Your task to perform on an android device: turn off location history Image 0: 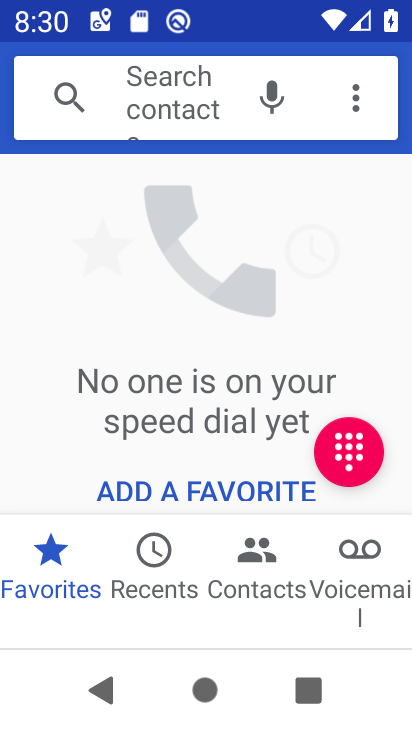
Step 0: press home button
Your task to perform on an android device: turn off location history Image 1: 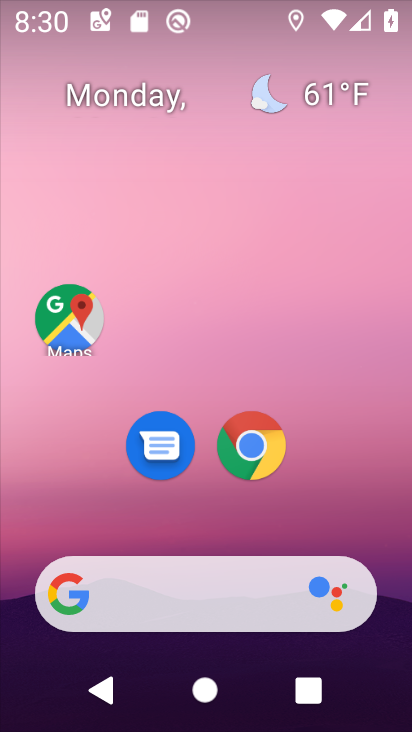
Step 1: click (67, 317)
Your task to perform on an android device: turn off location history Image 2: 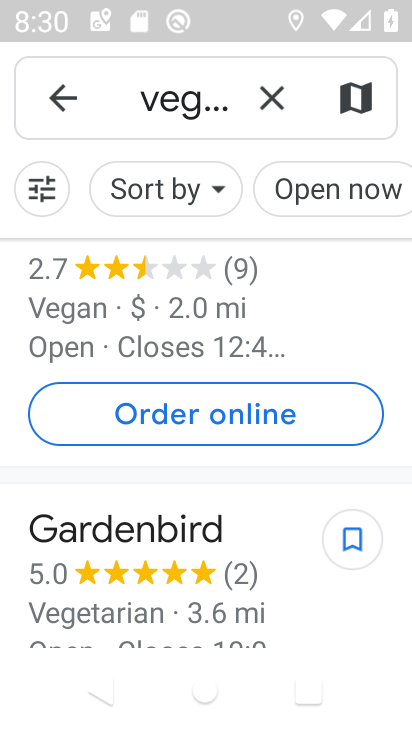
Step 2: press home button
Your task to perform on an android device: turn off location history Image 3: 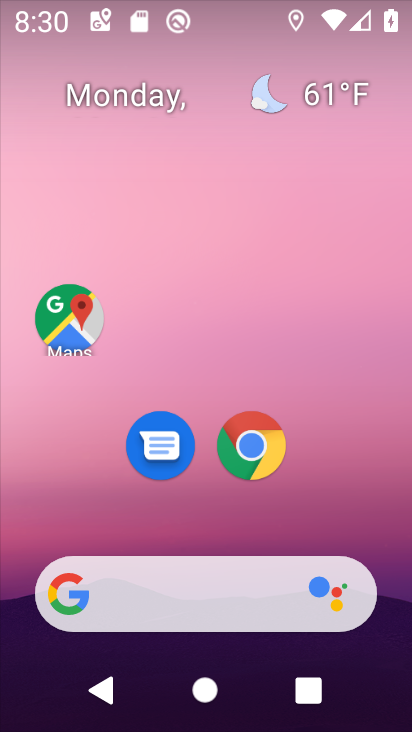
Step 3: drag from (207, 524) to (243, 43)
Your task to perform on an android device: turn off location history Image 4: 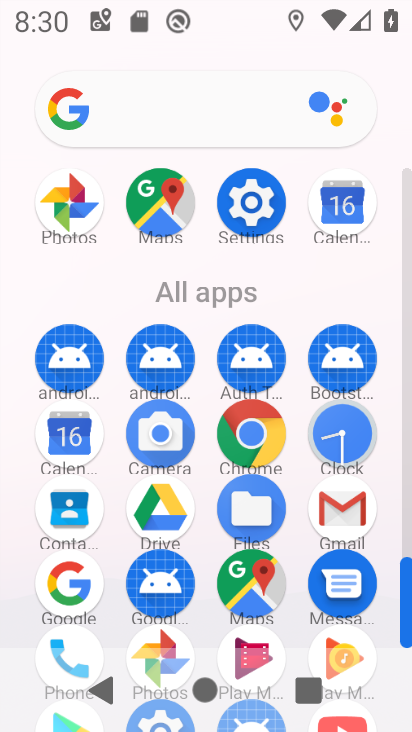
Step 4: click (251, 194)
Your task to perform on an android device: turn off location history Image 5: 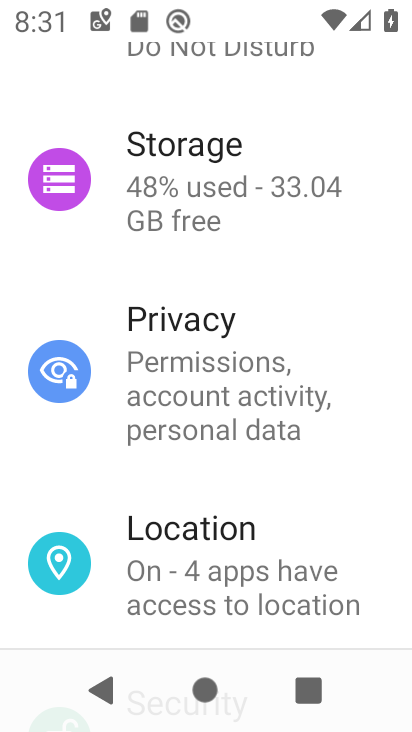
Step 5: click (221, 550)
Your task to perform on an android device: turn off location history Image 6: 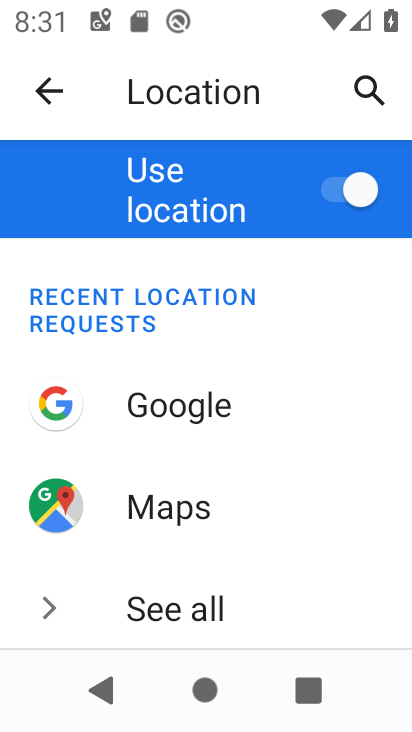
Step 6: drag from (250, 600) to (258, 201)
Your task to perform on an android device: turn off location history Image 7: 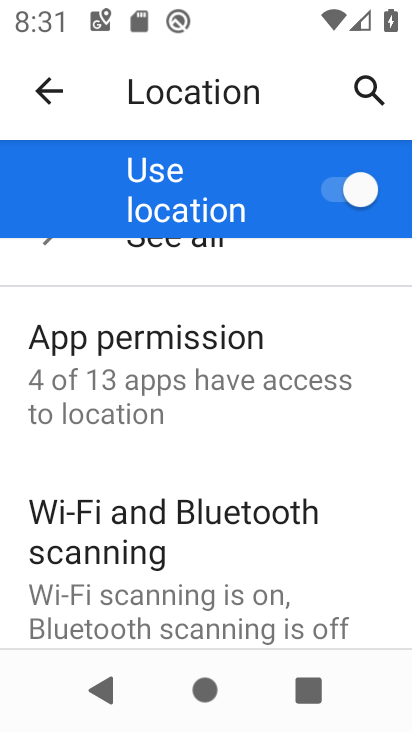
Step 7: drag from (232, 579) to (263, 149)
Your task to perform on an android device: turn off location history Image 8: 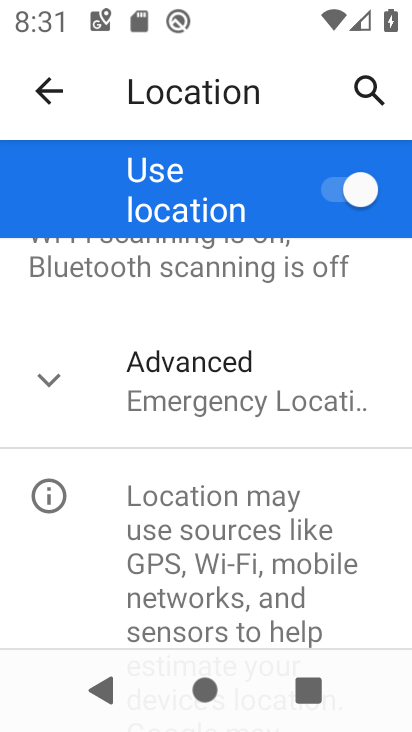
Step 8: click (47, 385)
Your task to perform on an android device: turn off location history Image 9: 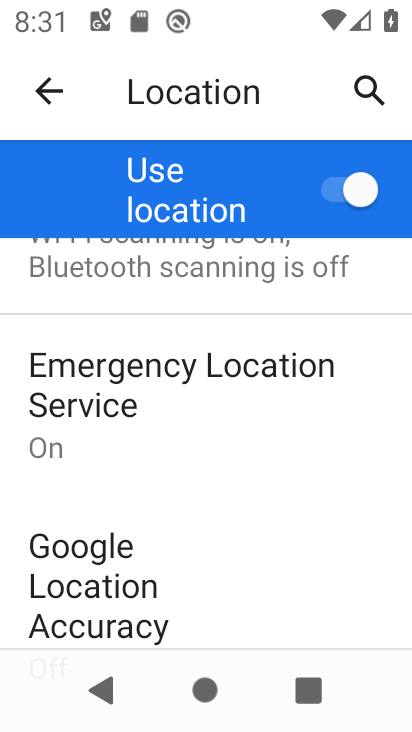
Step 9: drag from (195, 578) to (228, 316)
Your task to perform on an android device: turn off location history Image 10: 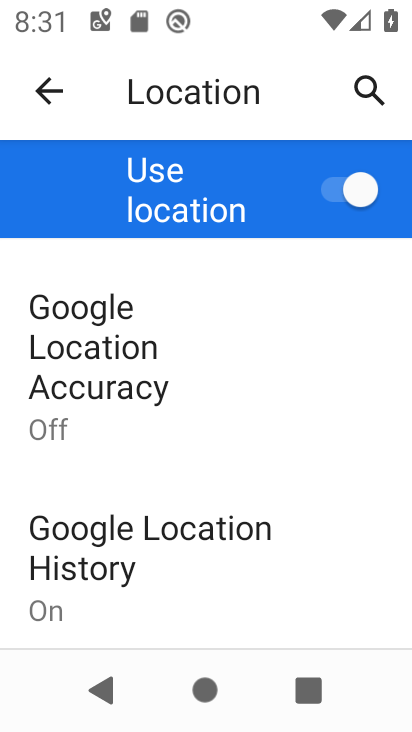
Step 10: click (162, 559)
Your task to perform on an android device: turn off location history Image 11: 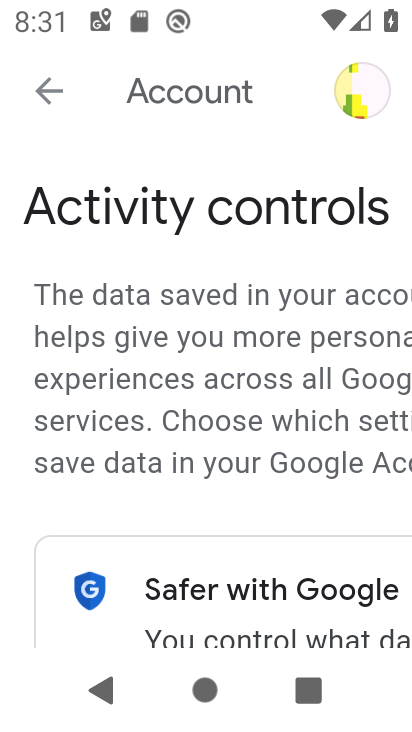
Step 11: drag from (245, 583) to (266, 115)
Your task to perform on an android device: turn off location history Image 12: 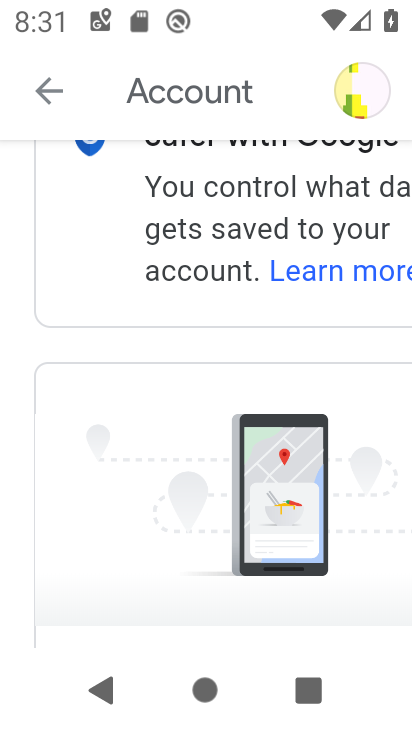
Step 12: drag from (193, 530) to (238, 237)
Your task to perform on an android device: turn off location history Image 13: 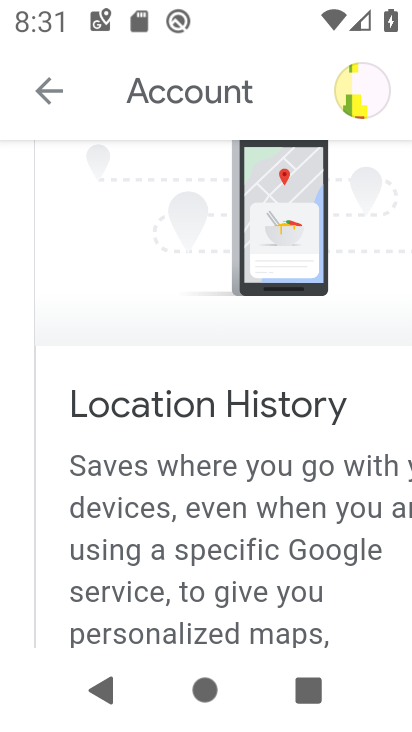
Step 13: drag from (197, 567) to (248, 272)
Your task to perform on an android device: turn off location history Image 14: 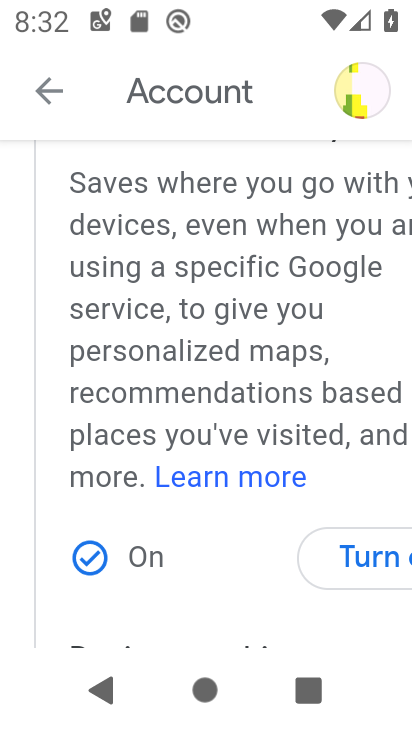
Step 14: click (369, 551)
Your task to perform on an android device: turn off location history Image 15: 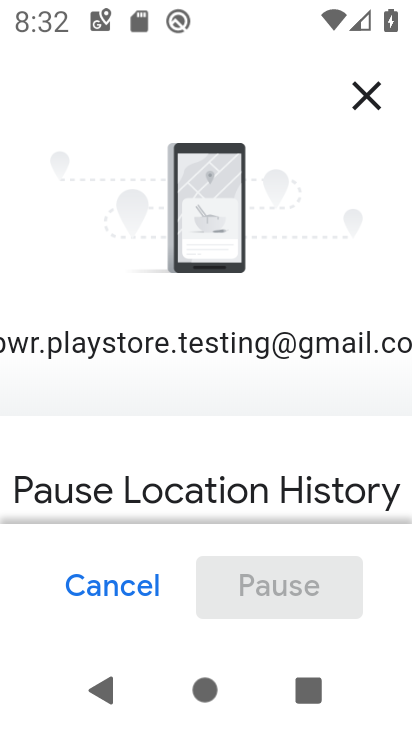
Step 15: drag from (281, 462) to (292, 4)
Your task to perform on an android device: turn off location history Image 16: 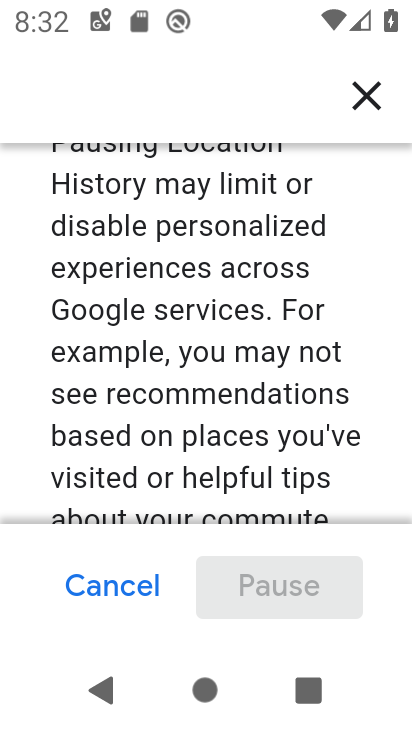
Step 16: drag from (258, 444) to (254, 103)
Your task to perform on an android device: turn off location history Image 17: 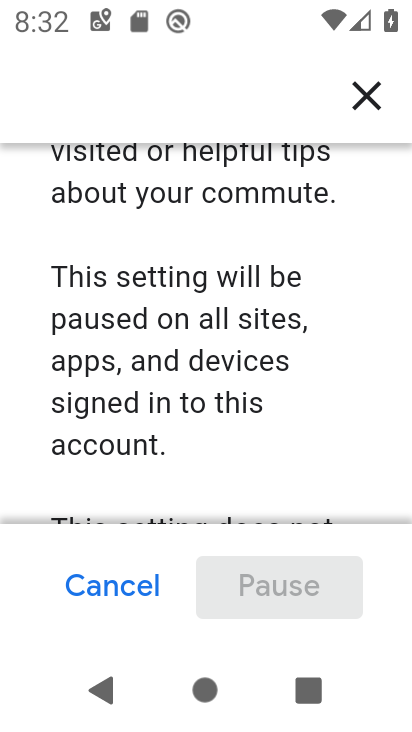
Step 17: drag from (236, 217) to (248, 148)
Your task to perform on an android device: turn off location history Image 18: 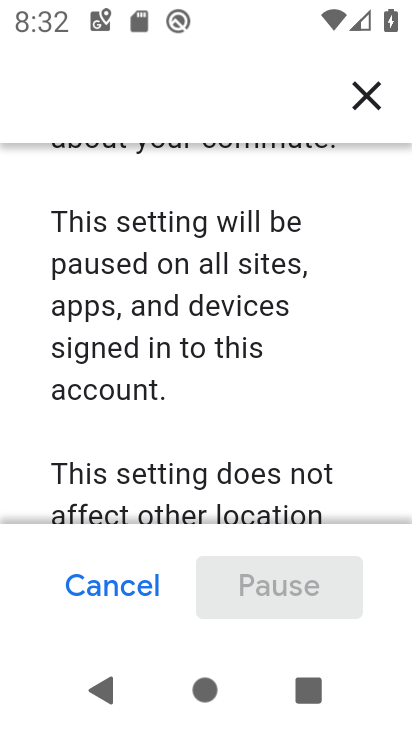
Step 18: drag from (247, 490) to (258, 123)
Your task to perform on an android device: turn off location history Image 19: 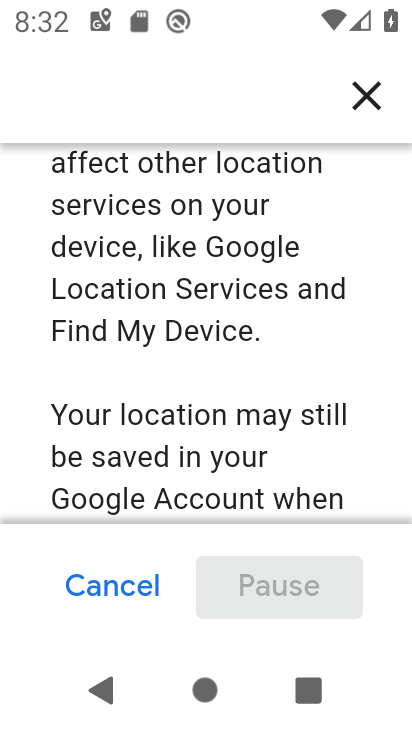
Step 19: drag from (217, 463) to (252, 129)
Your task to perform on an android device: turn off location history Image 20: 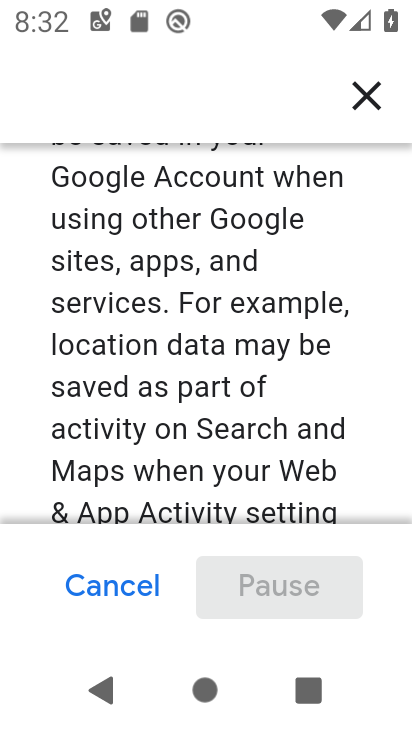
Step 20: drag from (238, 497) to (229, 141)
Your task to perform on an android device: turn off location history Image 21: 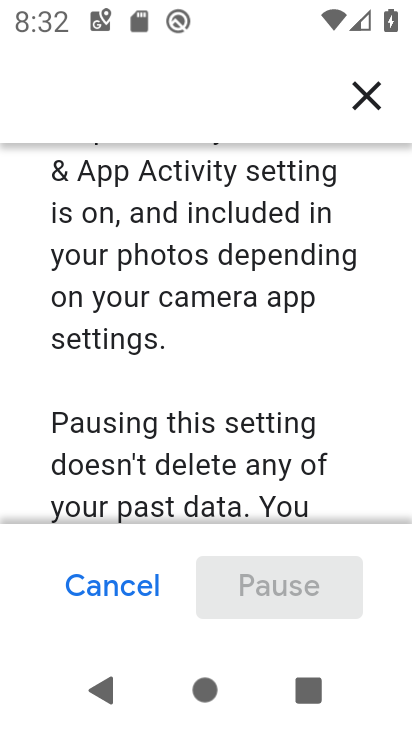
Step 21: drag from (246, 473) to (267, 65)
Your task to perform on an android device: turn off location history Image 22: 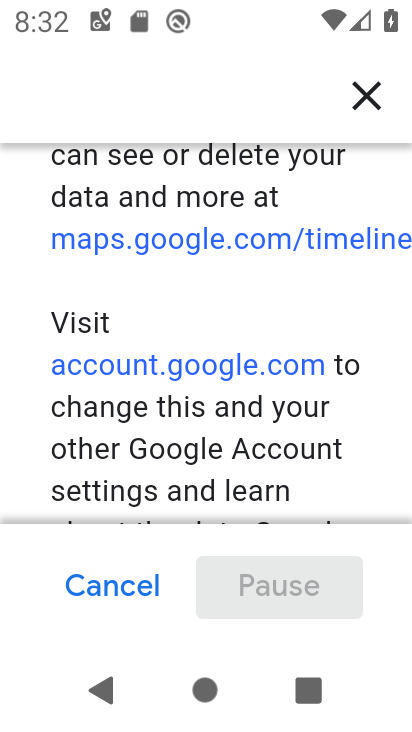
Step 22: drag from (258, 470) to (268, 118)
Your task to perform on an android device: turn off location history Image 23: 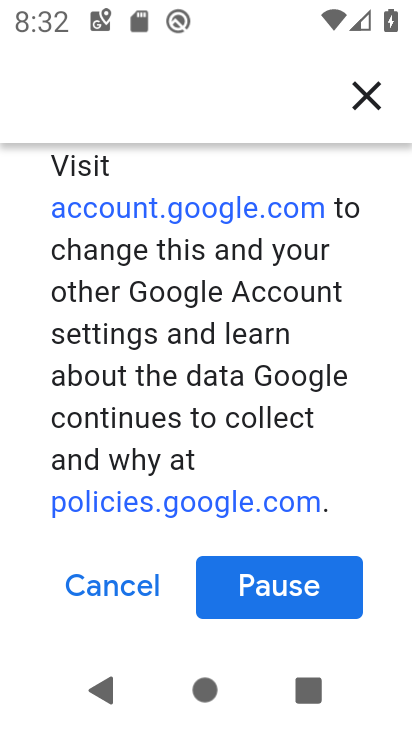
Step 23: click (283, 598)
Your task to perform on an android device: turn off location history Image 24: 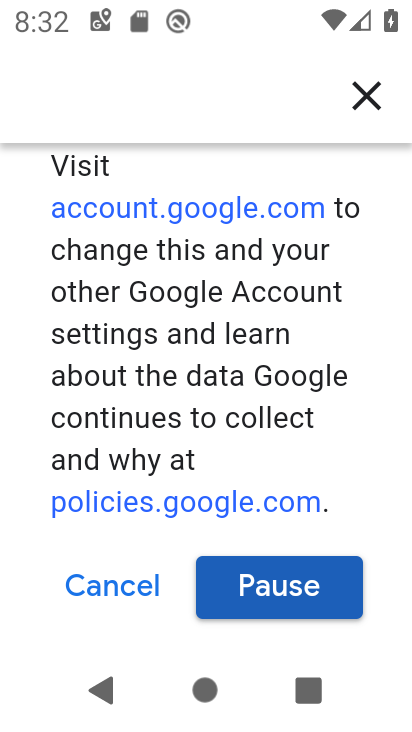
Step 24: click (279, 586)
Your task to perform on an android device: turn off location history Image 25: 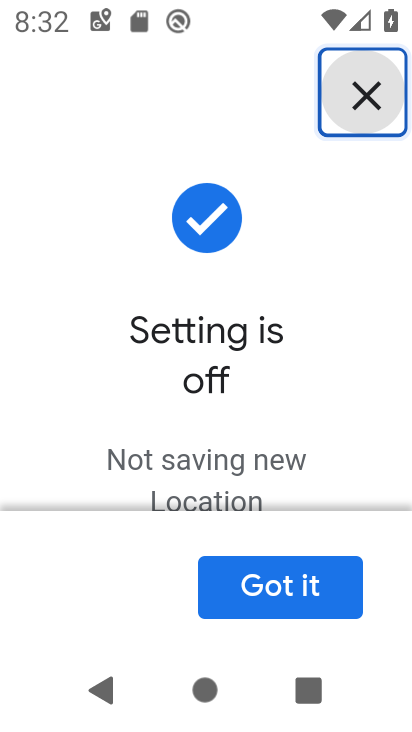
Step 25: click (279, 586)
Your task to perform on an android device: turn off location history Image 26: 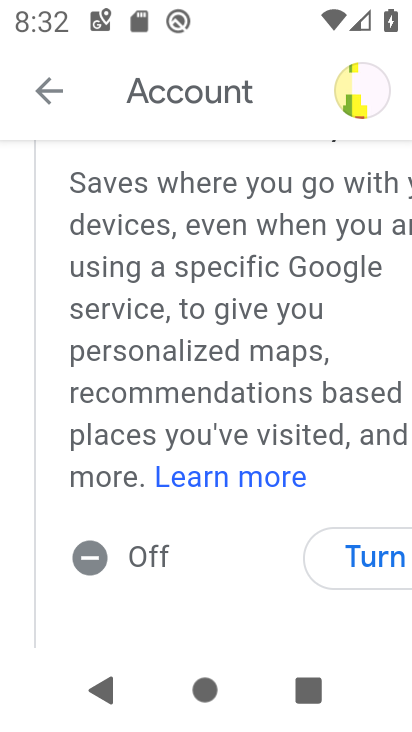
Step 26: task complete